Your task to perform on an android device: Is it going to rain today? Image 0: 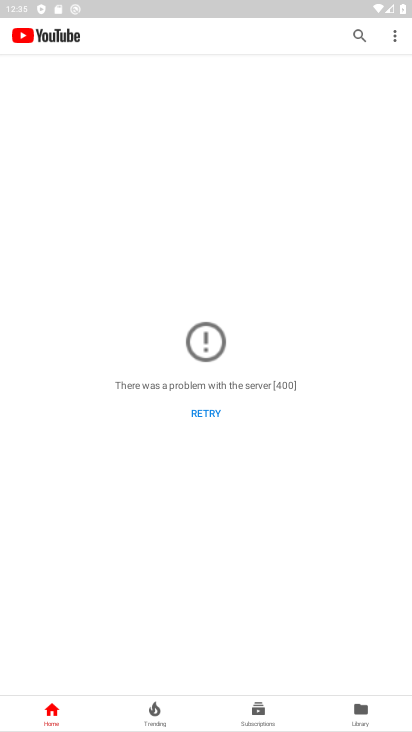
Step 0: press home button
Your task to perform on an android device: Is it going to rain today? Image 1: 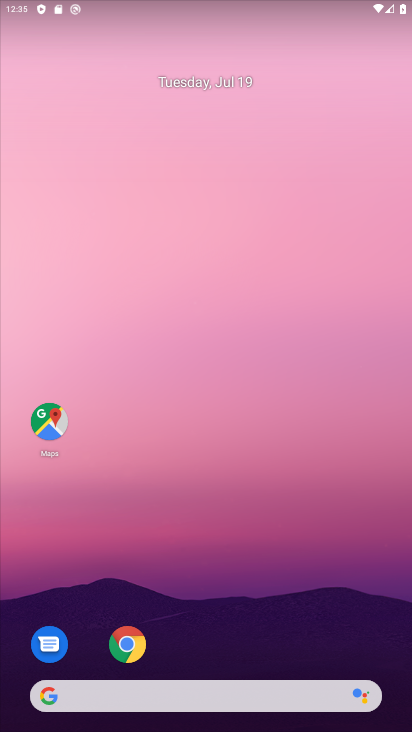
Step 1: click (126, 654)
Your task to perform on an android device: Is it going to rain today? Image 2: 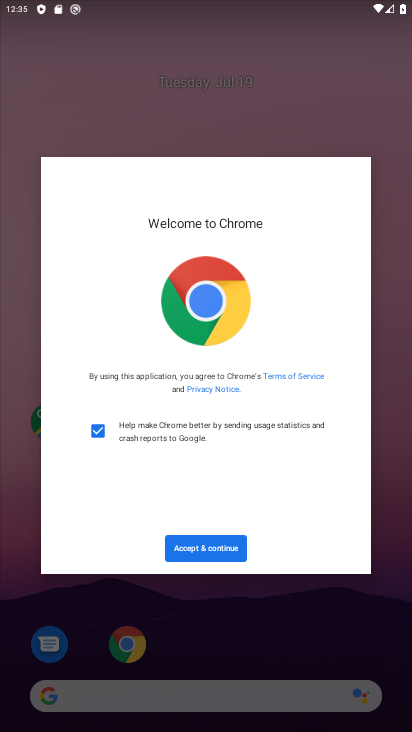
Step 2: click (215, 541)
Your task to perform on an android device: Is it going to rain today? Image 3: 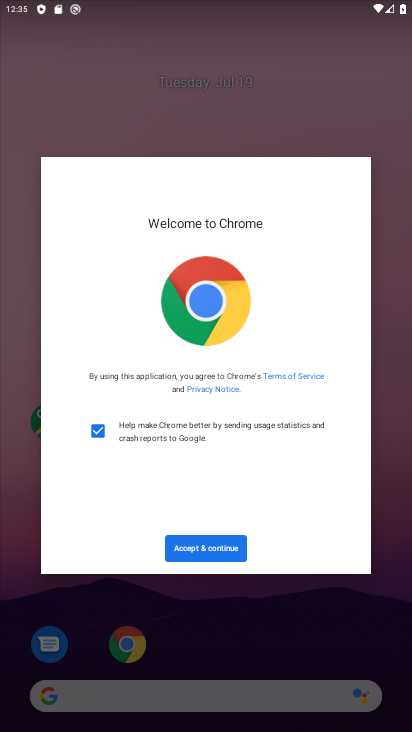
Step 3: click (215, 541)
Your task to perform on an android device: Is it going to rain today? Image 4: 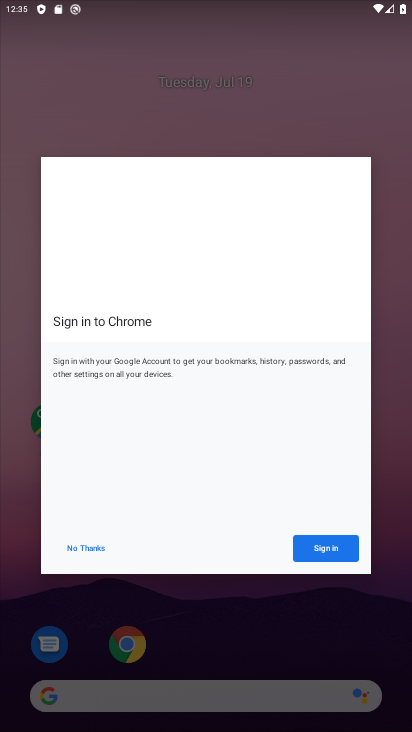
Step 4: click (215, 541)
Your task to perform on an android device: Is it going to rain today? Image 5: 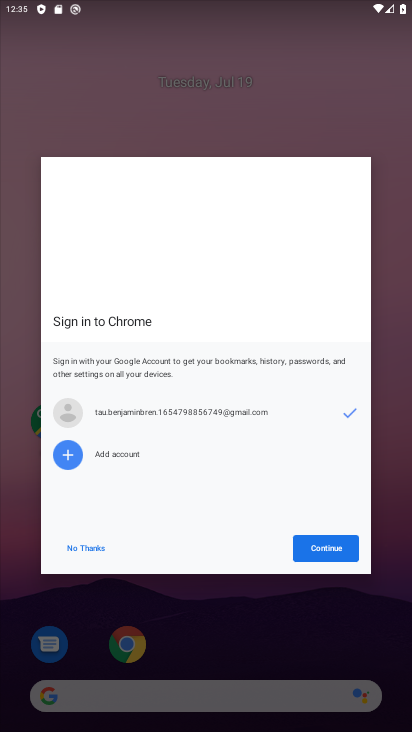
Step 5: click (313, 550)
Your task to perform on an android device: Is it going to rain today? Image 6: 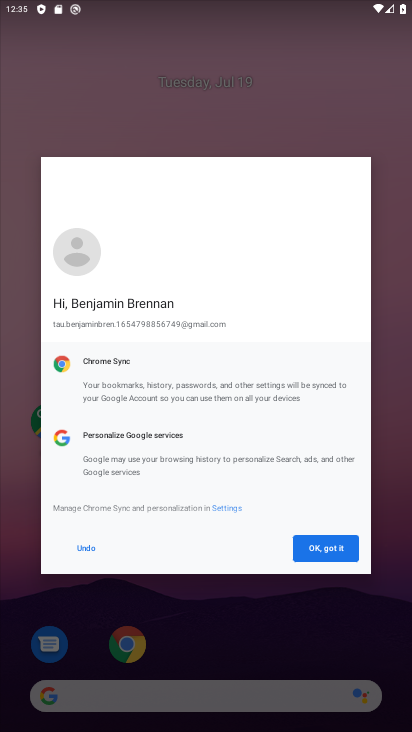
Step 6: click (313, 550)
Your task to perform on an android device: Is it going to rain today? Image 7: 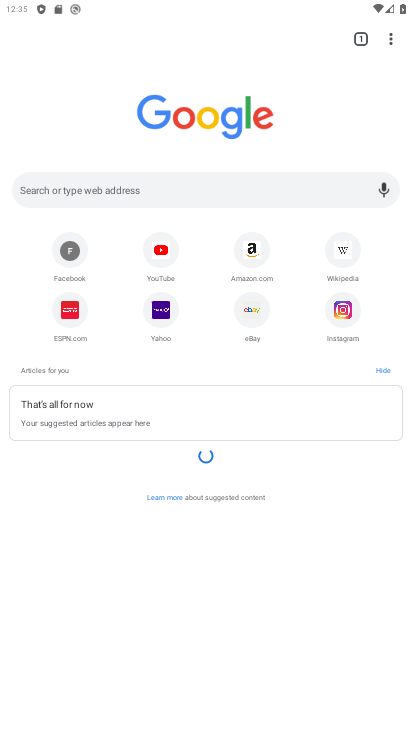
Step 7: click (130, 187)
Your task to perform on an android device: Is it going to rain today? Image 8: 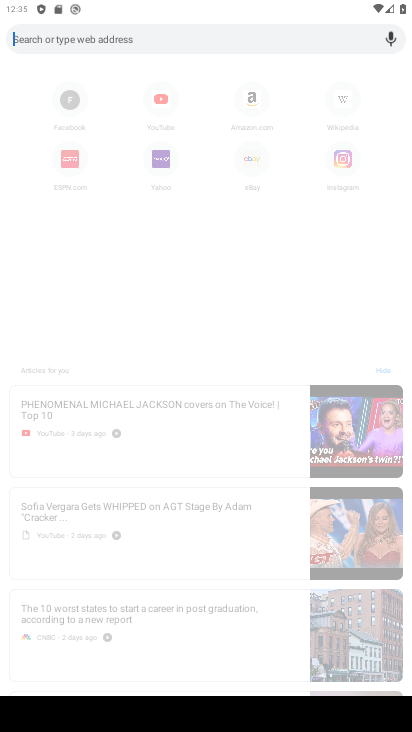
Step 8: type "weather"
Your task to perform on an android device: Is it going to rain today? Image 9: 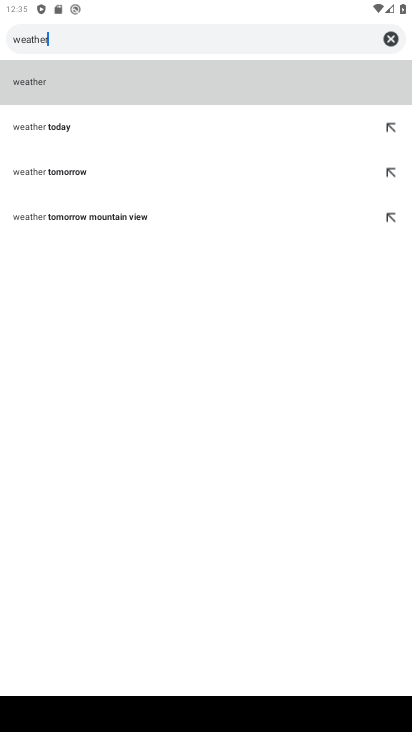
Step 9: click (49, 83)
Your task to perform on an android device: Is it going to rain today? Image 10: 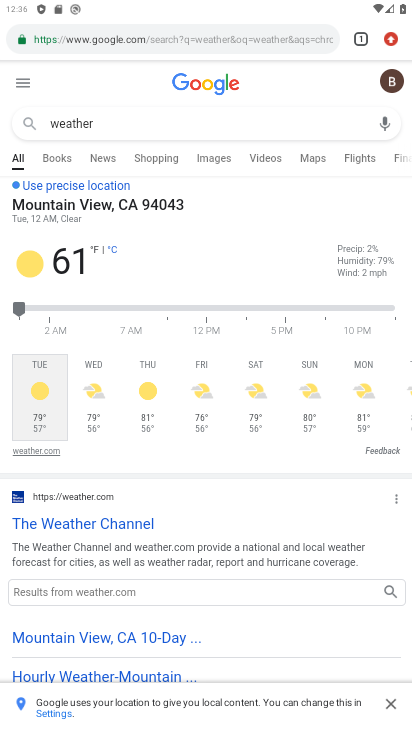
Step 10: task complete